Your task to perform on an android device: Open battery settings Image 0: 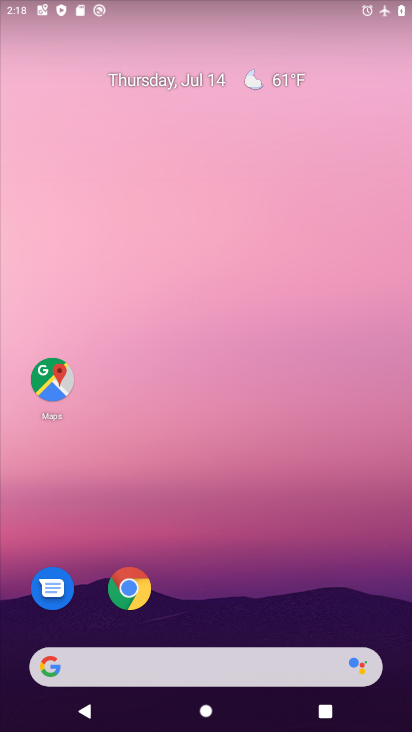
Step 0: drag from (269, 669) to (280, 247)
Your task to perform on an android device: Open battery settings Image 1: 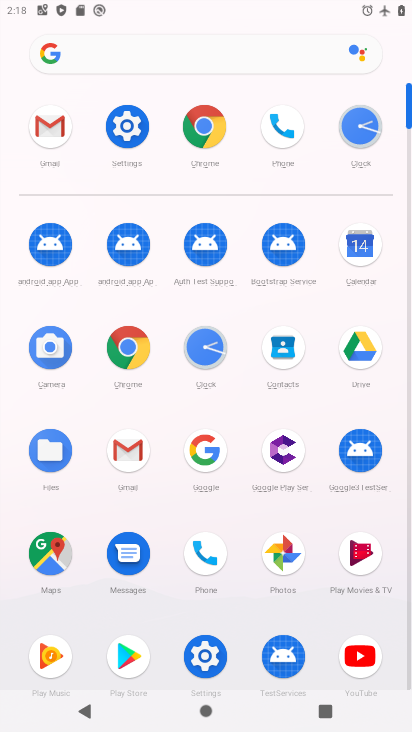
Step 1: drag from (201, 544) to (265, 217)
Your task to perform on an android device: Open battery settings Image 2: 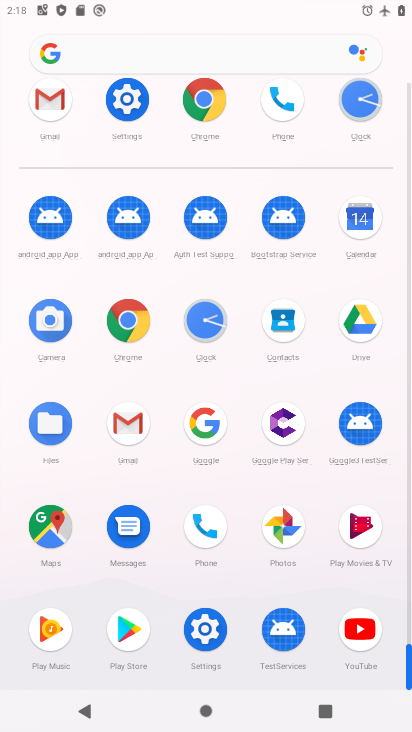
Step 2: click (124, 91)
Your task to perform on an android device: Open battery settings Image 3: 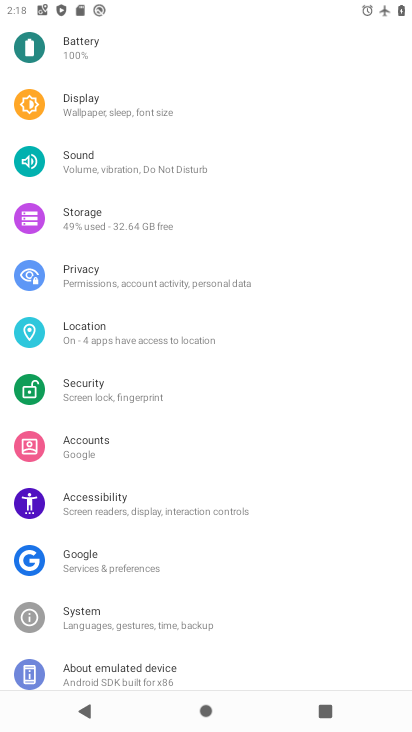
Step 3: click (95, 29)
Your task to perform on an android device: Open battery settings Image 4: 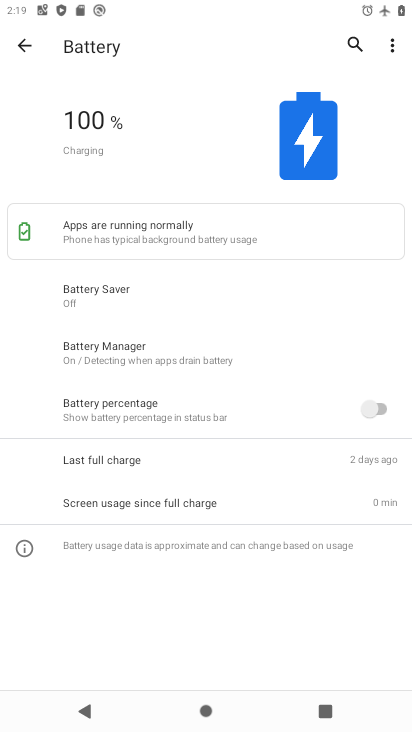
Step 4: task complete